Your task to perform on an android device: add a contact in the contacts app Image 0: 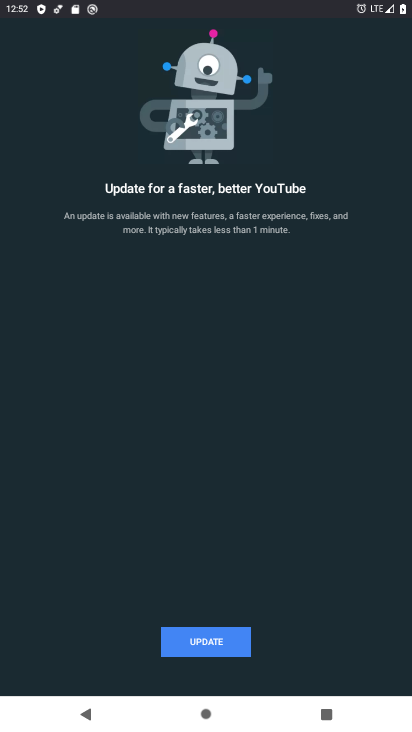
Step 0: drag from (246, 613) to (125, 489)
Your task to perform on an android device: add a contact in the contacts app Image 1: 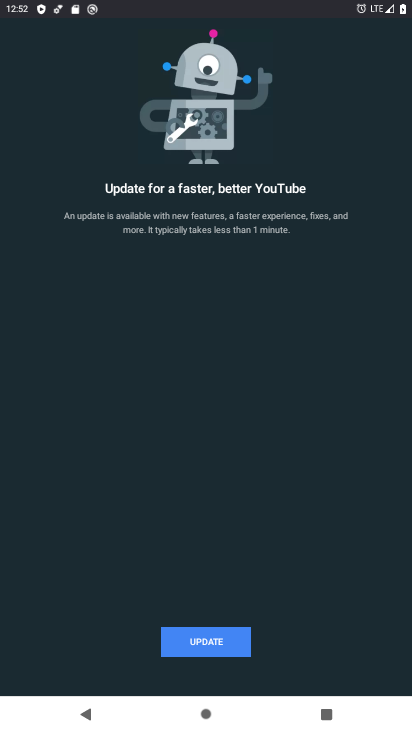
Step 1: press home button
Your task to perform on an android device: add a contact in the contacts app Image 2: 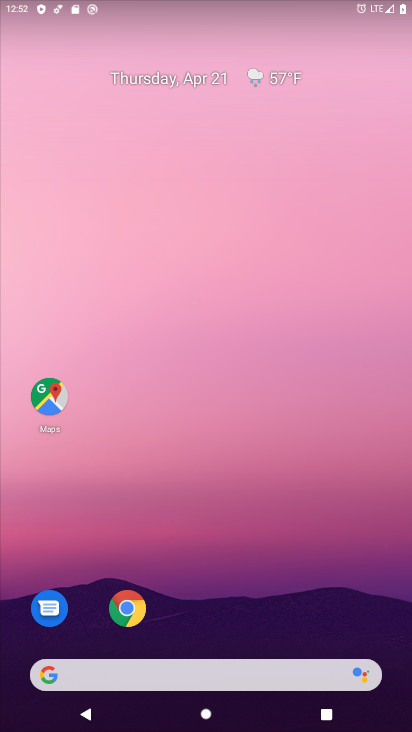
Step 2: drag from (217, 624) to (223, 181)
Your task to perform on an android device: add a contact in the contacts app Image 3: 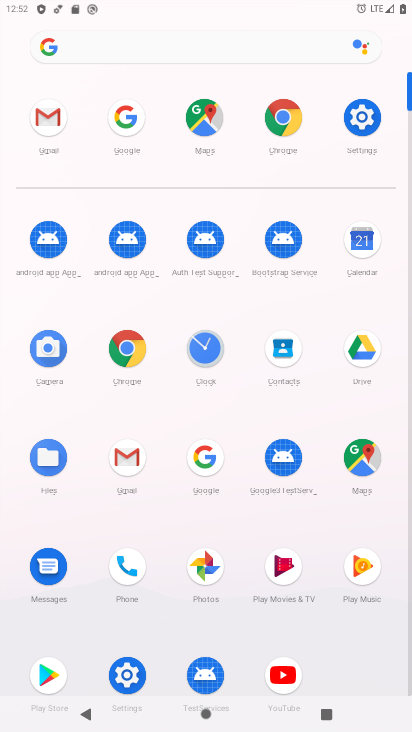
Step 3: click (282, 361)
Your task to perform on an android device: add a contact in the contacts app Image 4: 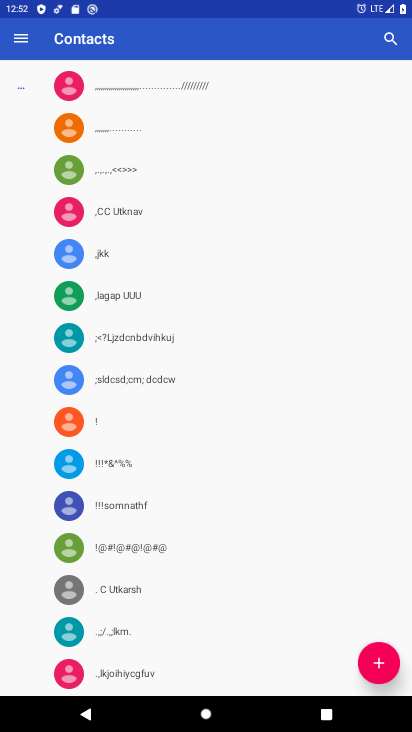
Step 4: click (371, 653)
Your task to perform on an android device: add a contact in the contacts app Image 5: 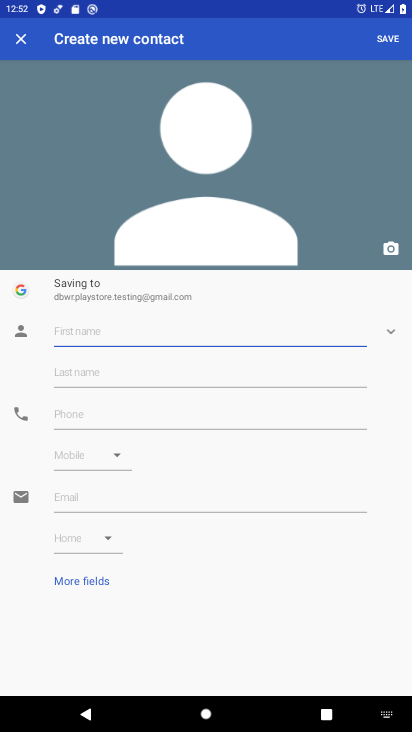
Step 5: type "fgjgf"
Your task to perform on an android device: add a contact in the contacts app Image 6: 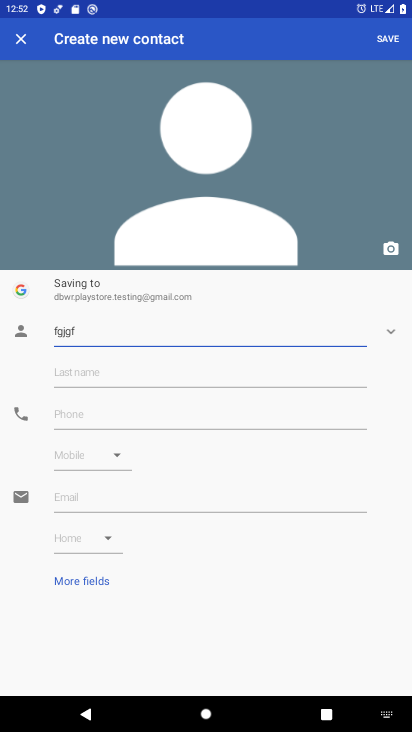
Step 6: click (74, 420)
Your task to perform on an android device: add a contact in the contacts app Image 7: 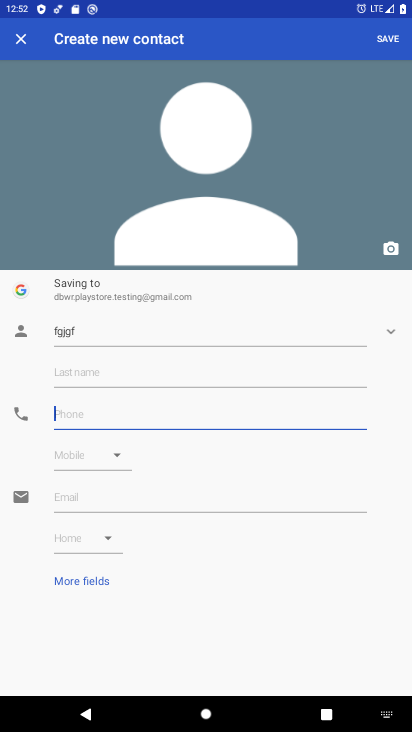
Step 7: type "586787697969"
Your task to perform on an android device: add a contact in the contacts app Image 8: 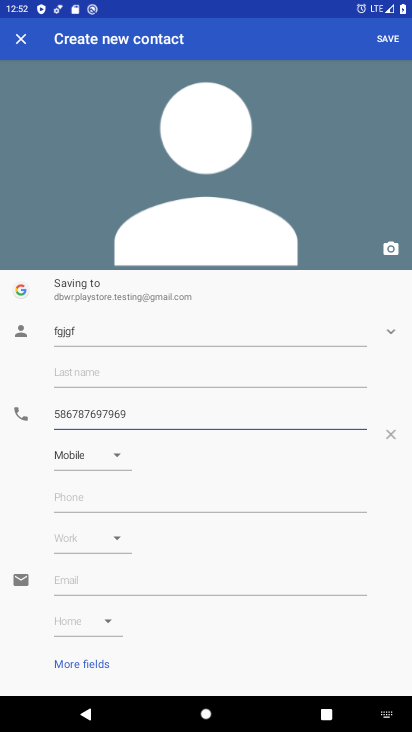
Step 8: click (388, 40)
Your task to perform on an android device: add a contact in the contacts app Image 9: 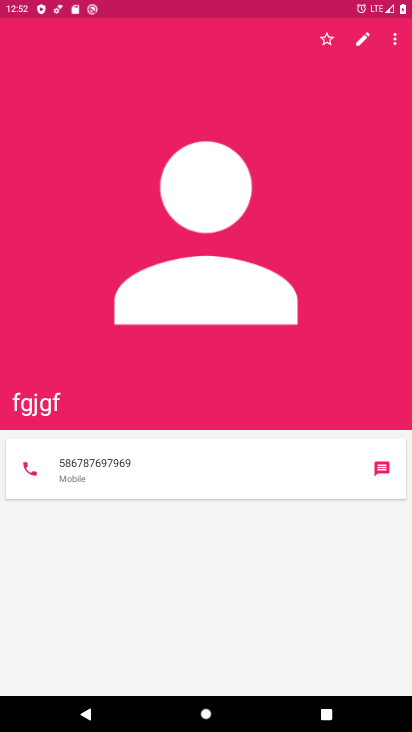
Step 9: task complete